Your task to perform on an android device: add a label to a message in the gmail app Image 0: 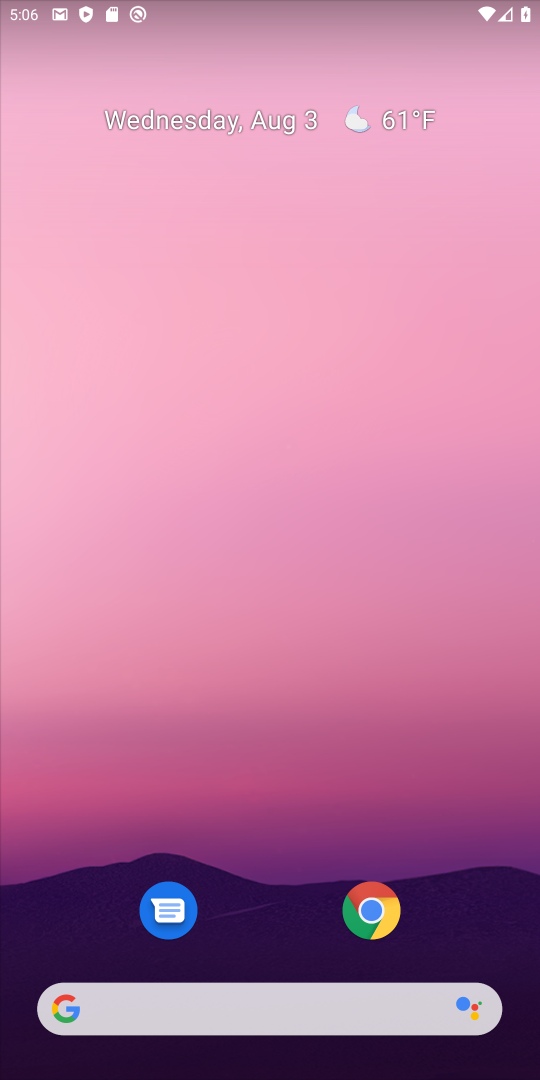
Step 0: drag from (307, 887) to (341, 240)
Your task to perform on an android device: add a label to a message in the gmail app Image 1: 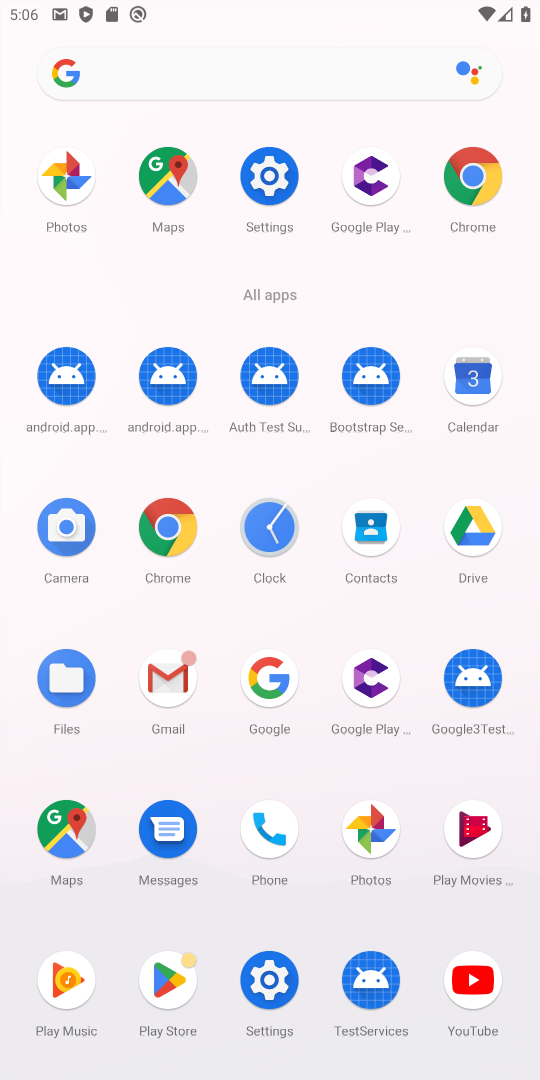
Step 1: click (172, 681)
Your task to perform on an android device: add a label to a message in the gmail app Image 2: 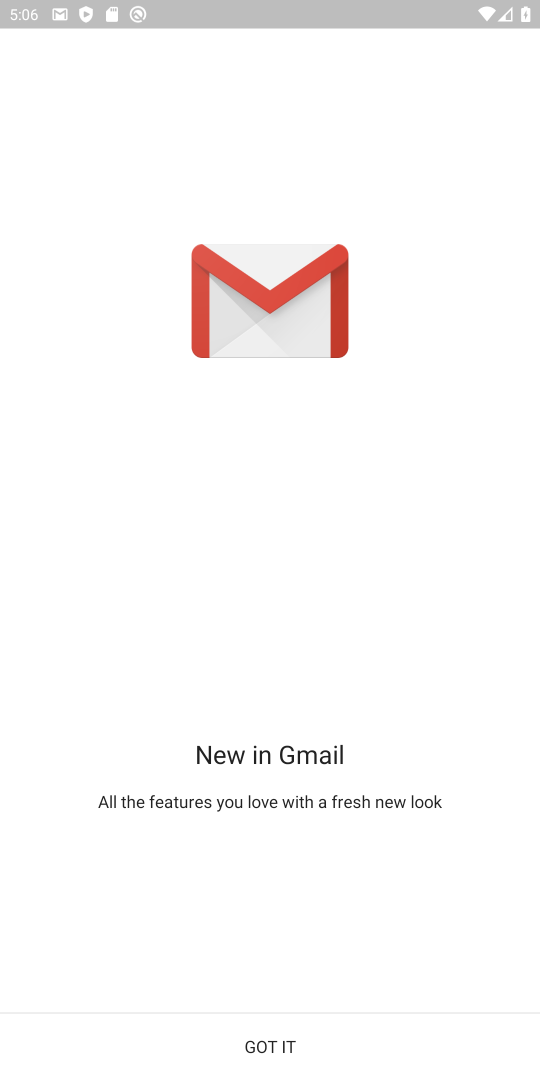
Step 2: click (275, 1046)
Your task to perform on an android device: add a label to a message in the gmail app Image 3: 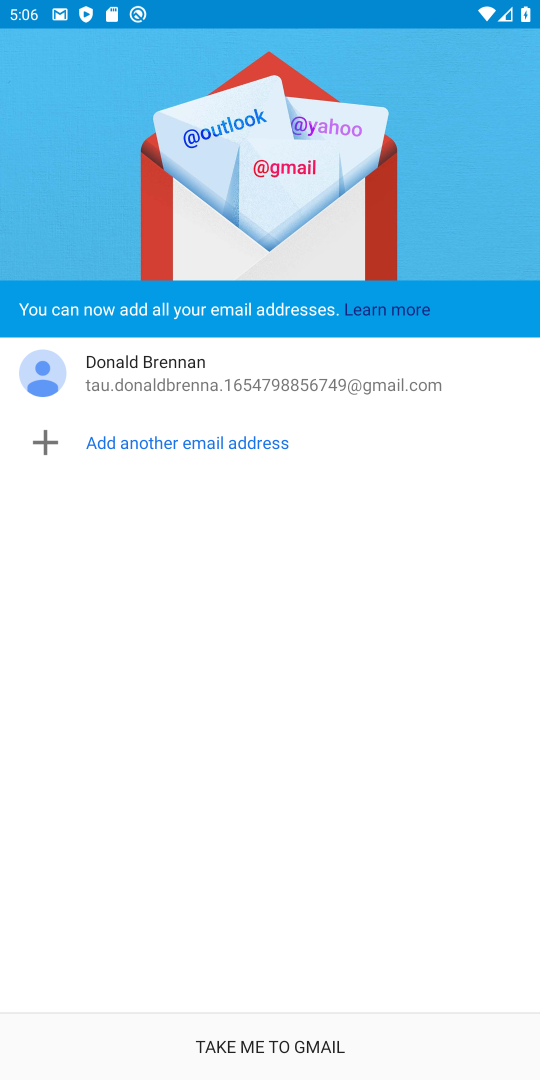
Step 3: click (272, 1037)
Your task to perform on an android device: add a label to a message in the gmail app Image 4: 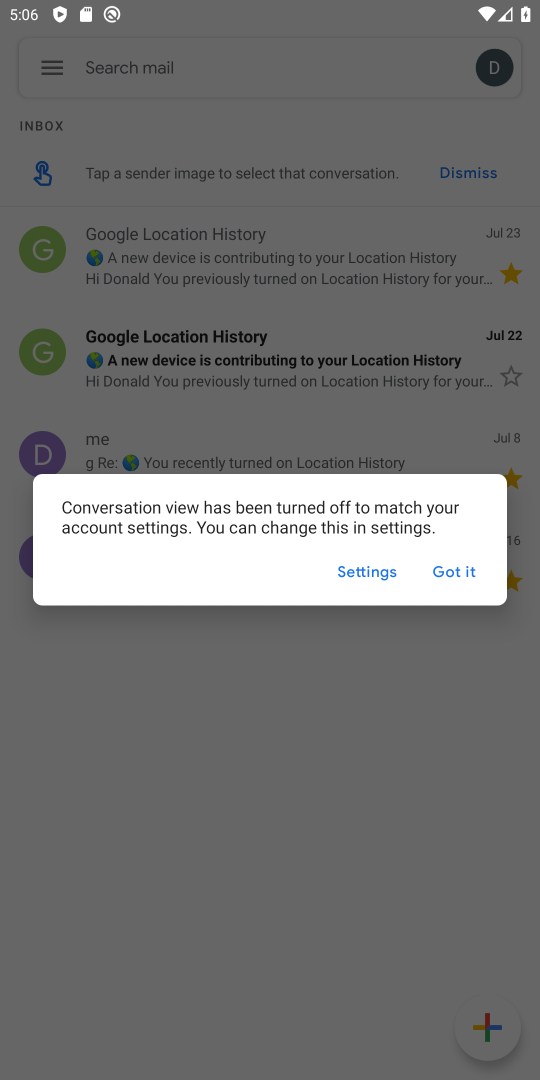
Step 4: press home button
Your task to perform on an android device: add a label to a message in the gmail app Image 5: 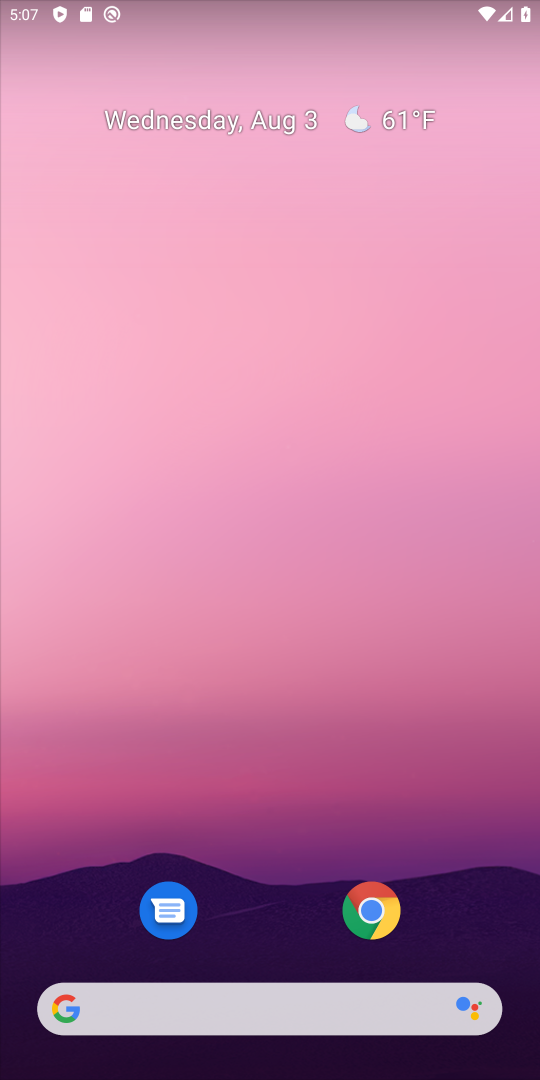
Step 5: drag from (321, 918) to (391, 228)
Your task to perform on an android device: add a label to a message in the gmail app Image 6: 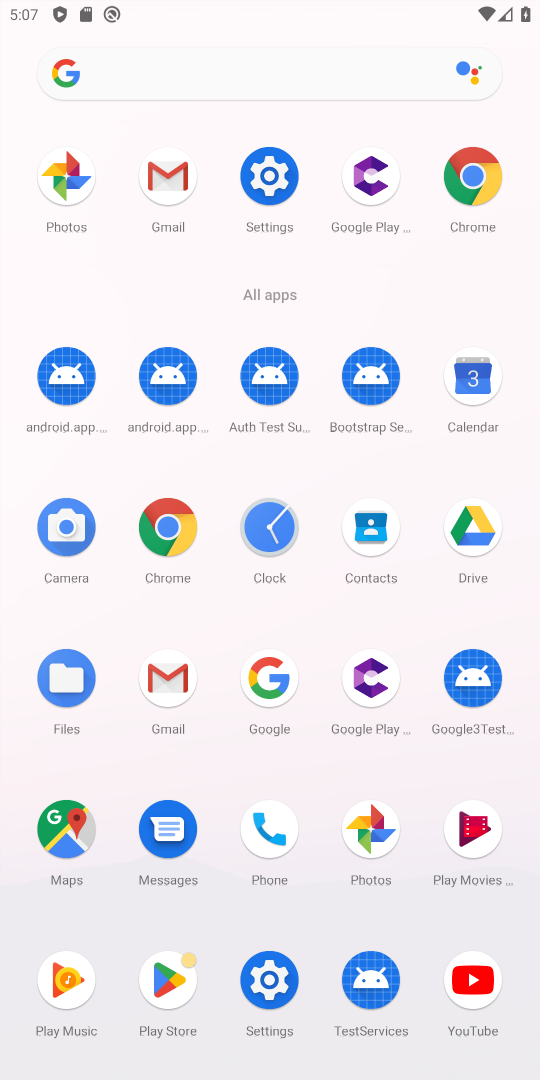
Step 6: click (179, 664)
Your task to perform on an android device: add a label to a message in the gmail app Image 7: 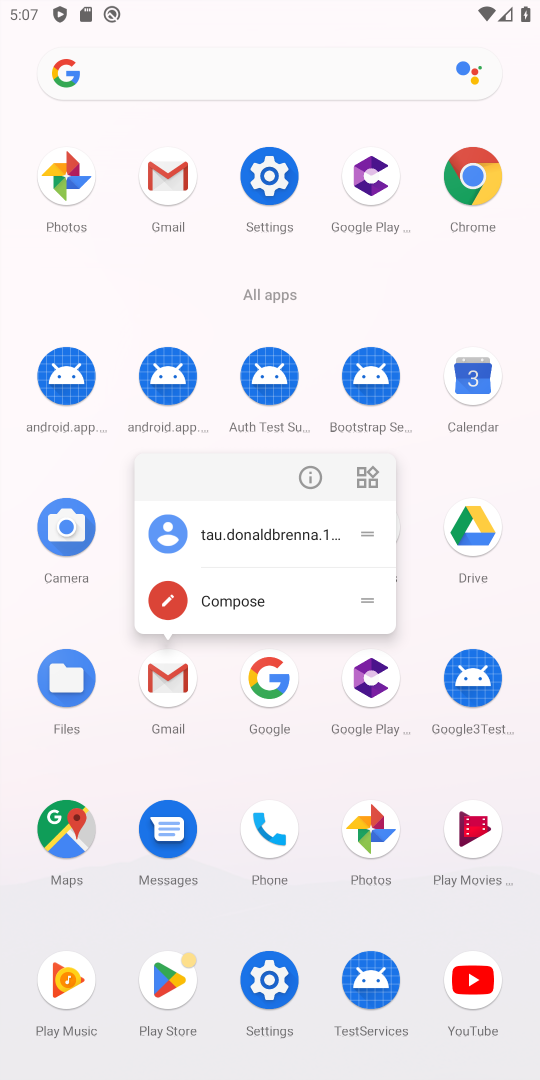
Step 7: click (175, 671)
Your task to perform on an android device: add a label to a message in the gmail app Image 8: 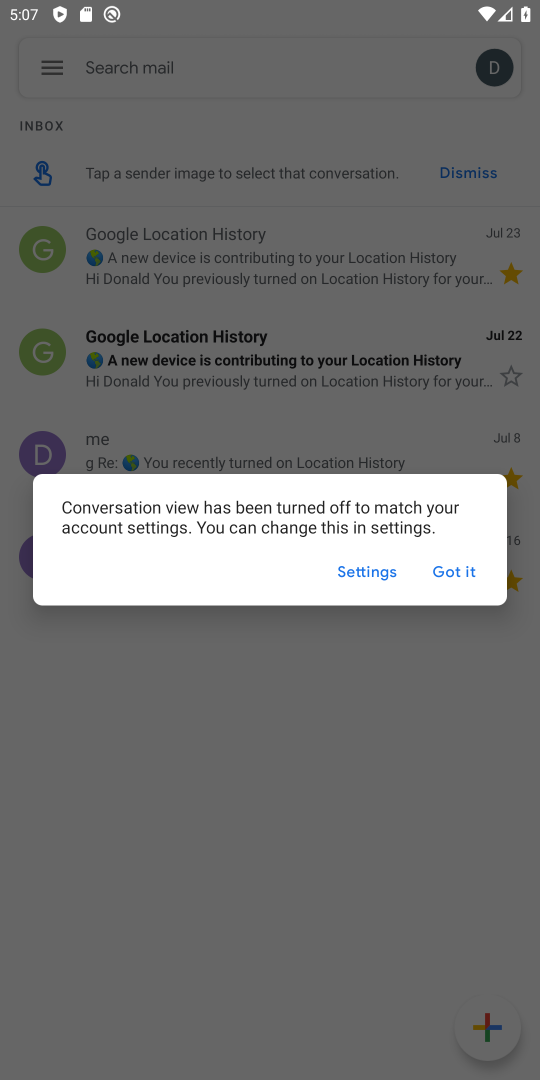
Step 8: click (448, 567)
Your task to perform on an android device: add a label to a message in the gmail app Image 9: 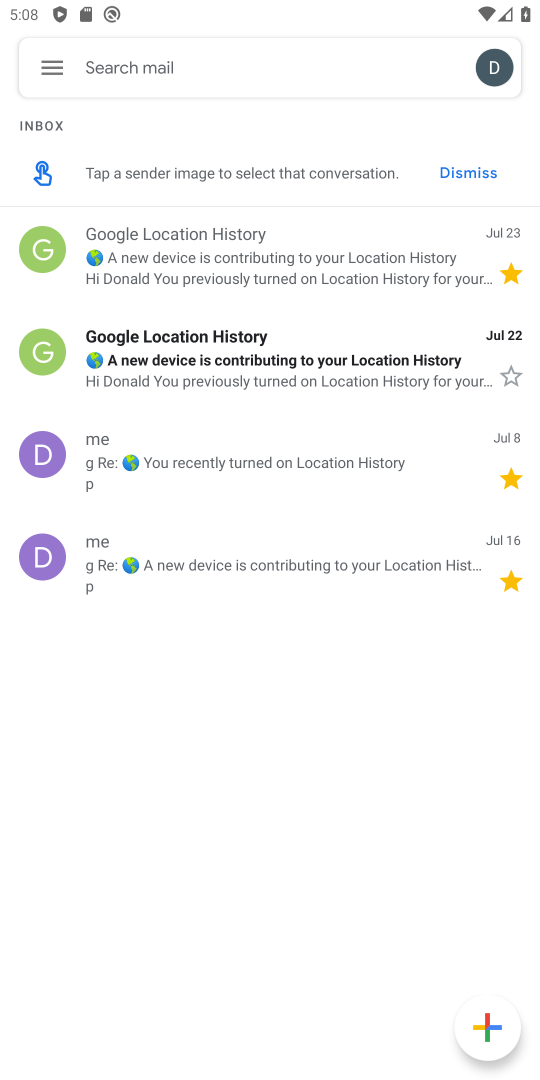
Step 9: task complete